Your task to perform on an android device: Open wifi settings Image 0: 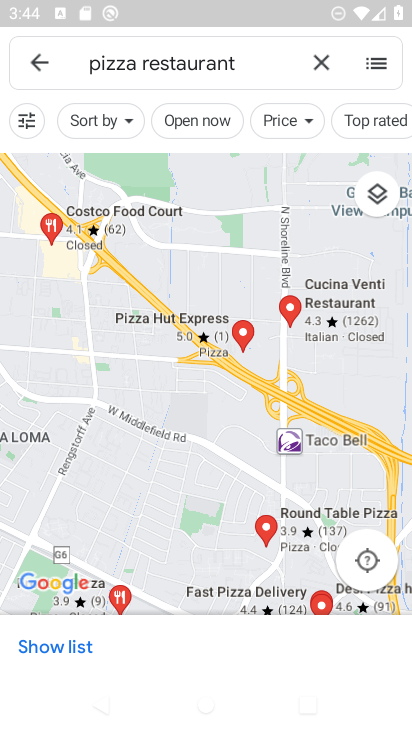
Step 0: press home button
Your task to perform on an android device: Open wifi settings Image 1: 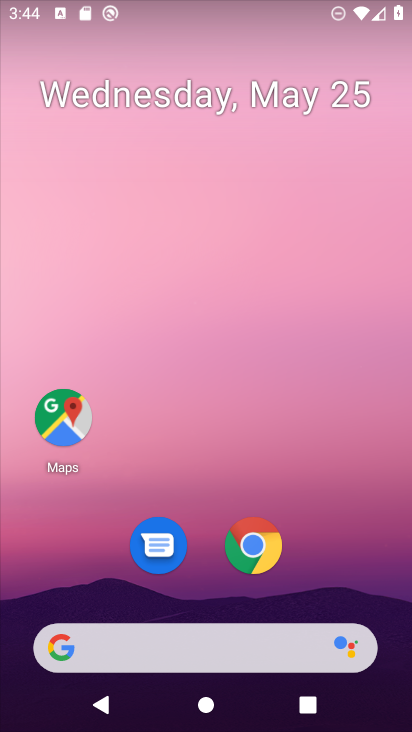
Step 1: drag from (347, 572) to (165, 9)
Your task to perform on an android device: Open wifi settings Image 2: 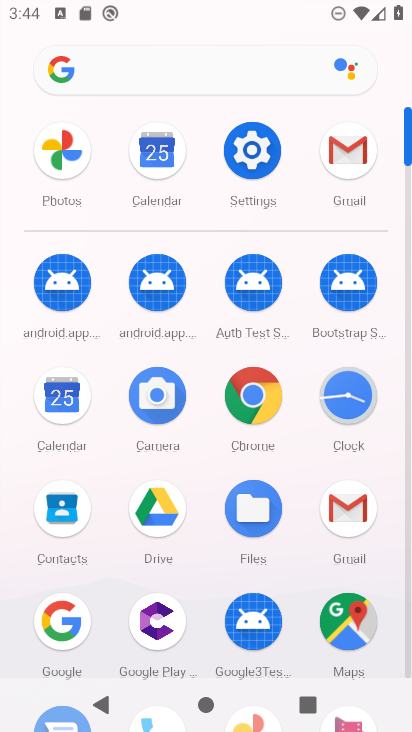
Step 2: click (255, 192)
Your task to perform on an android device: Open wifi settings Image 3: 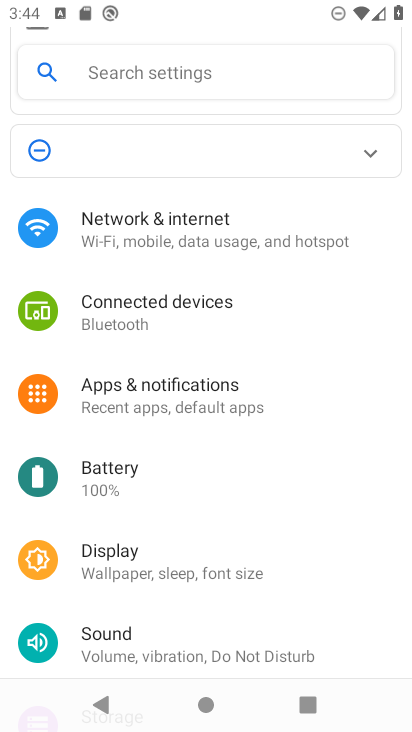
Step 3: click (162, 235)
Your task to perform on an android device: Open wifi settings Image 4: 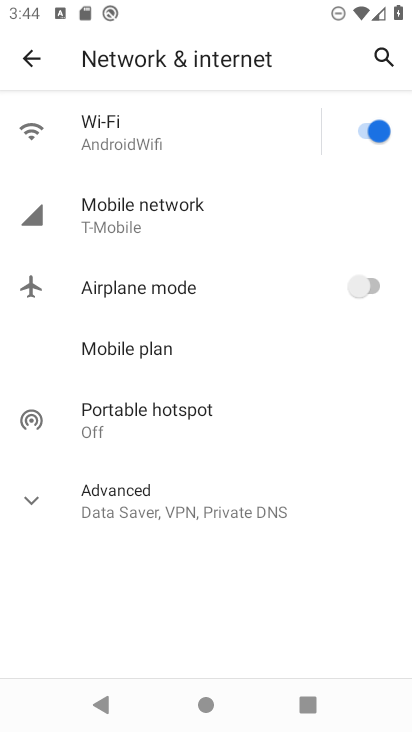
Step 4: click (144, 146)
Your task to perform on an android device: Open wifi settings Image 5: 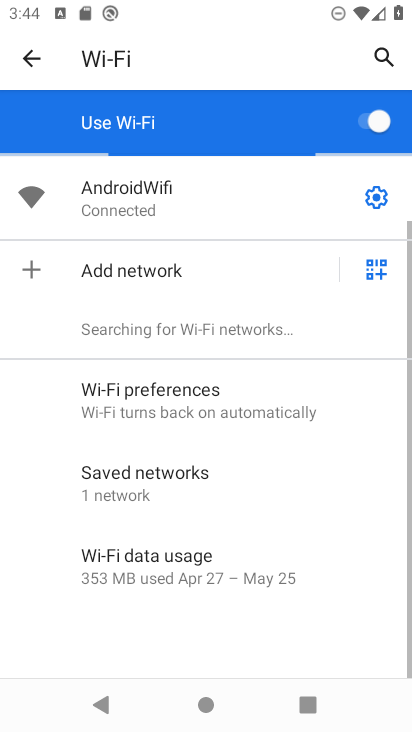
Step 5: task complete